Your task to perform on an android device: turn pop-ups off in chrome Image 0: 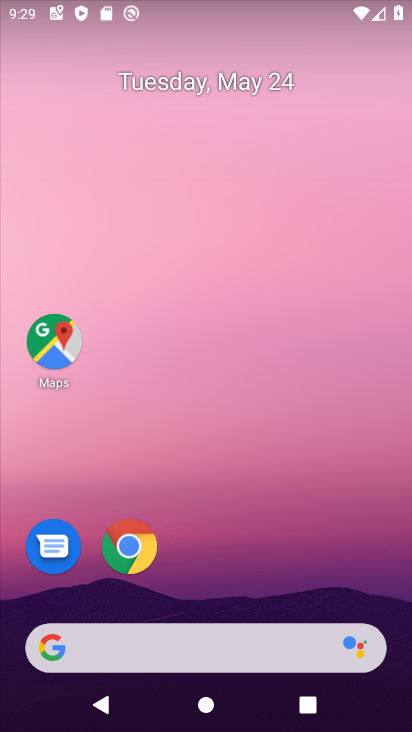
Step 0: click (128, 552)
Your task to perform on an android device: turn pop-ups off in chrome Image 1: 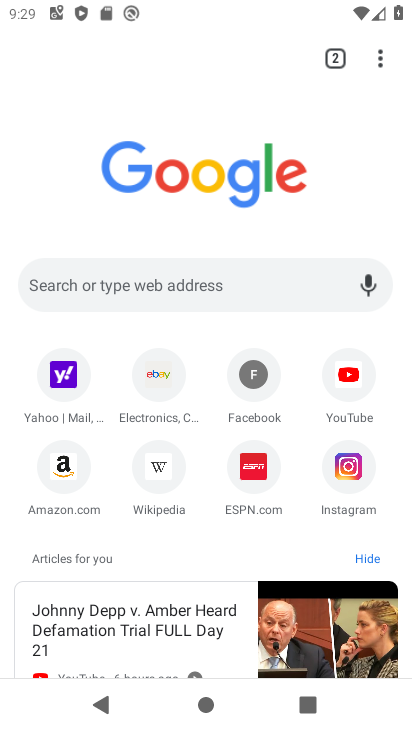
Step 1: click (384, 58)
Your task to perform on an android device: turn pop-ups off in chrome Image 2: 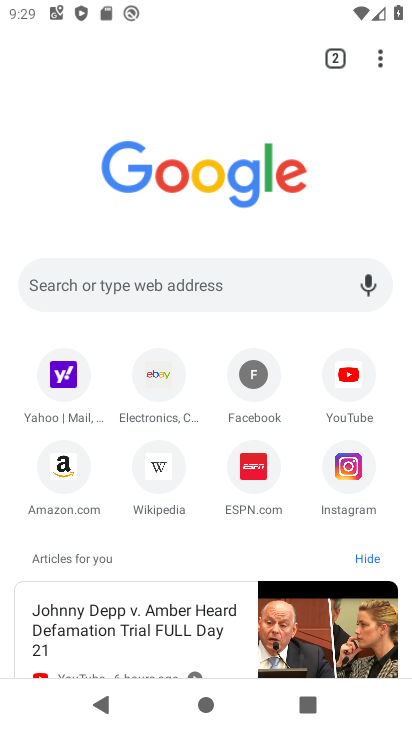
Step 2: click (375, 57)
Your task to perform on an android device: turn pop-ups off in chrome Image 3: 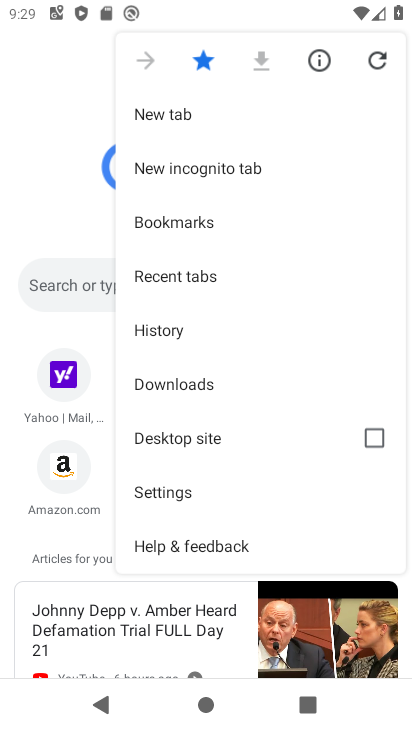
Step 3: click (170, 491)
Your task to perform on an android device: turn pop-ups off in chrome Image 4: 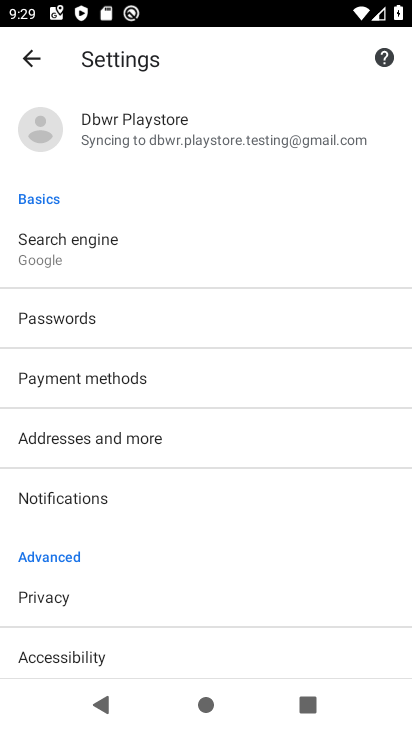
Step 4: drag from (103, 638) to (160, 212)
Your task to perform on an android device: turn pop-ups off in chrome Image 5: 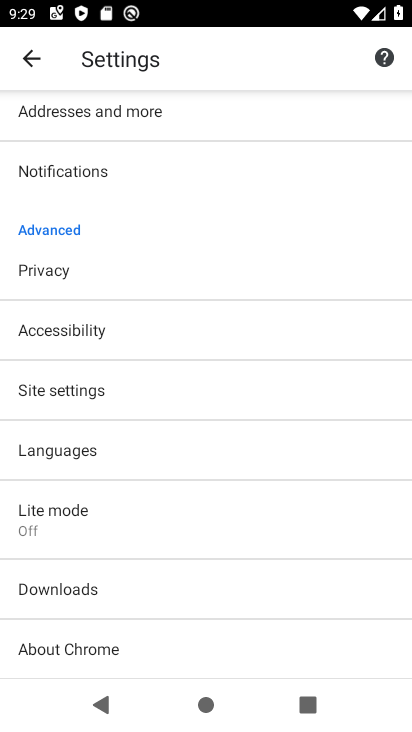
Step 5: click (53, 389)
Your task to perform on an android device: turn pop-ups off in chrome Image 6: 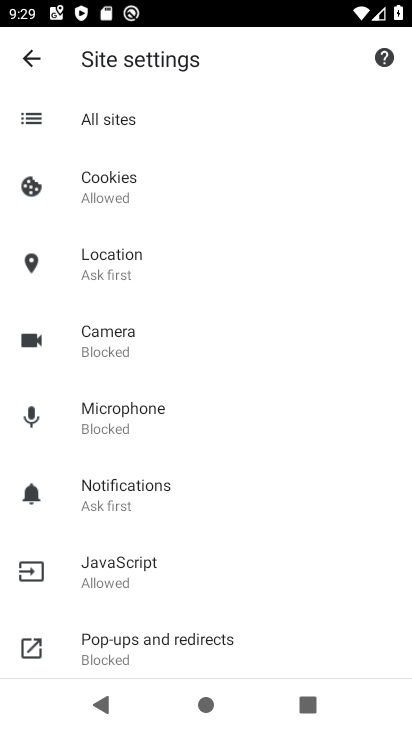
Step 6: click (108, 632)
Your task to perform on an android device: turn pop-ups off in chrome Image 7: 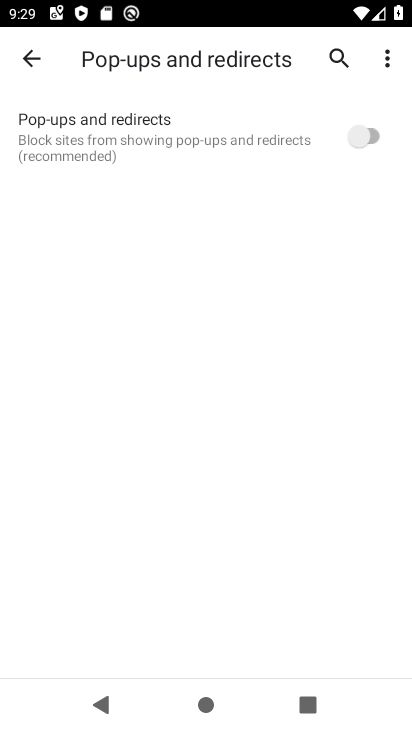
Step 7: task complete